Your task to perform on an android device: Open accessibility settings Image 0: 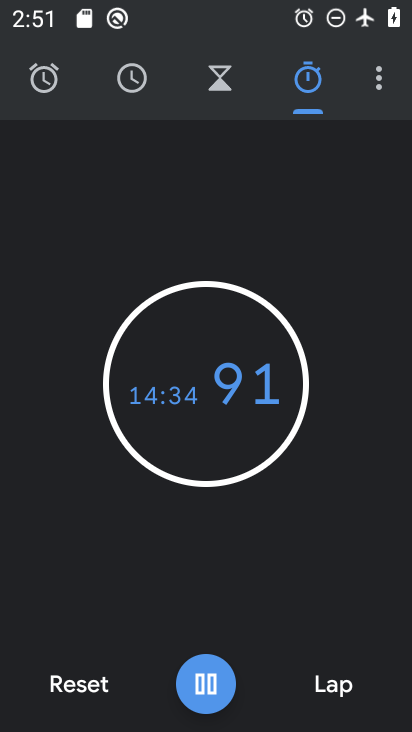
Step 0: press home button
Your task to perform on an android device: Open accessibility settings Image 1: 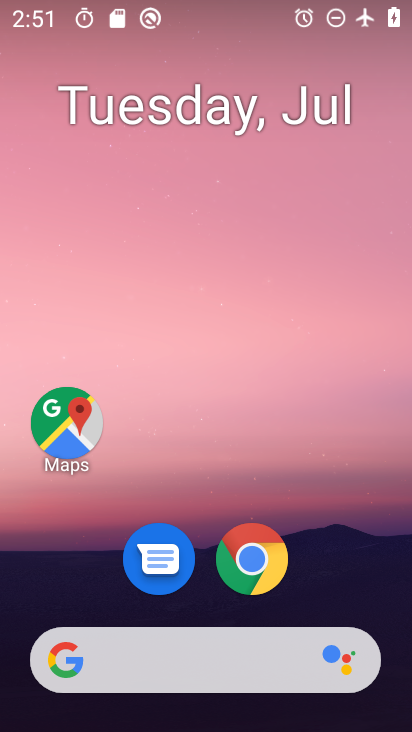
Step 1: drag from (360, 577) to (376, 152)
Your task to perform on an android device: Open accessibility settings Image 2: 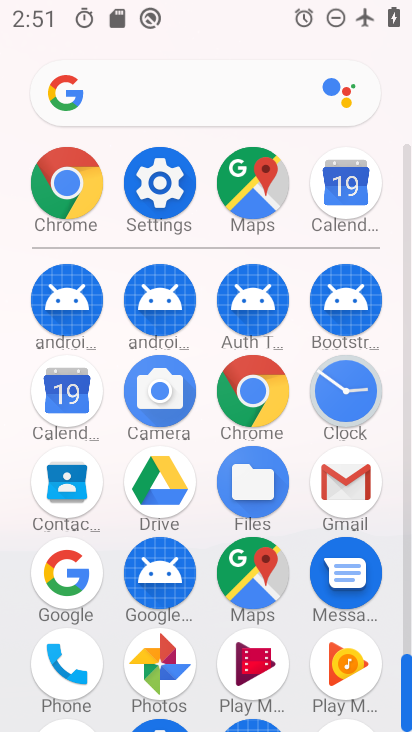
Step 2: click (169, 195)
Your task to perform on an android device: Open accessibility settings Image 3: 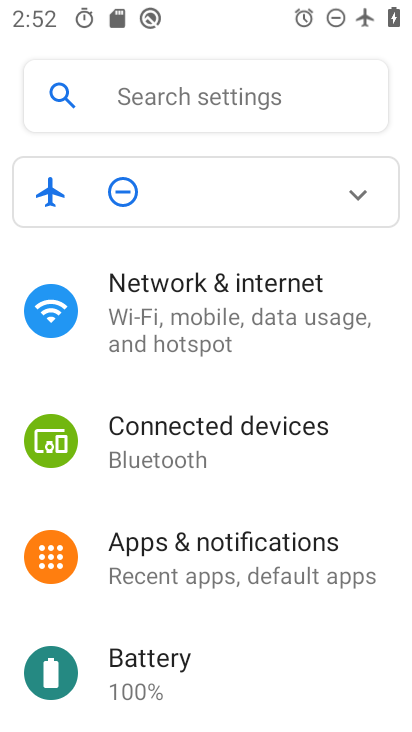
Step 3: drag from (350, 487) to (366, 418)
Your task to perform on an android device: Open accessibility settings Image 4: 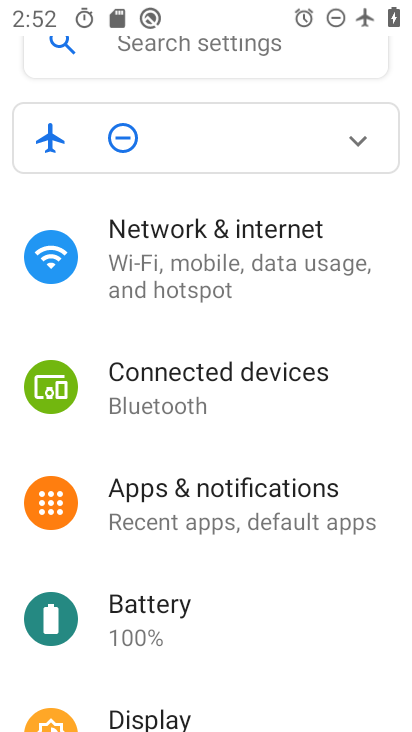
Step 4: drag from (371, 501) to (373, 425)
Your task to perform on an android device: Open accessibility settings Image 5: 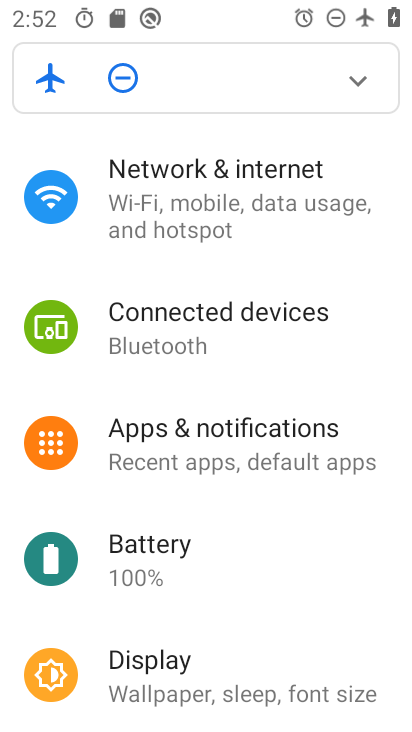
Step 5: drag from (374, 530) to (377, 454)
Your task to perform on an android device: Open accessibility settings Image 6: 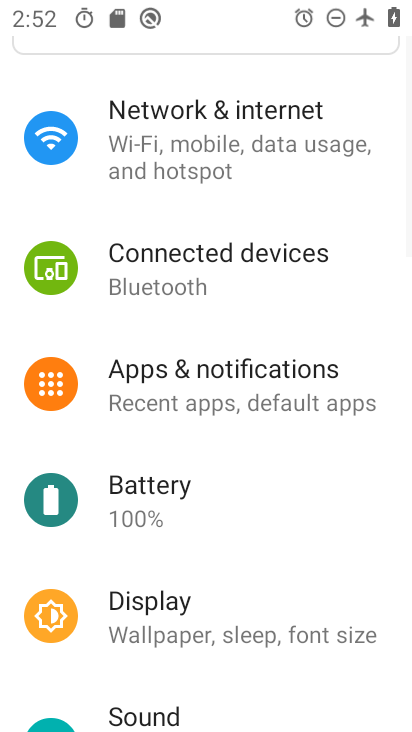
Step 6: drag from (367, 530) to (365, 462)
Your task to perform on an android device: Open accessibility settings Image 7: 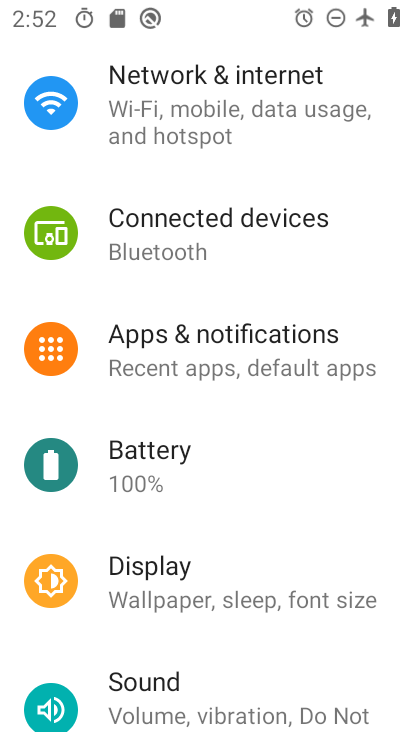
Step 7: drag from (350, 552) to (354, 420)
Your task to perform on an android device: Open accessibility settings Image 8: 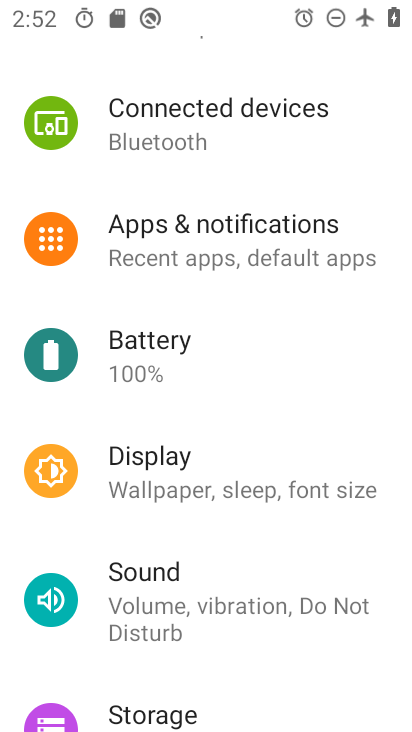
Step 8: drag from (327, 650) to (340, 463)
Your task to perform on an android device: Open accessibility settings Image 9: 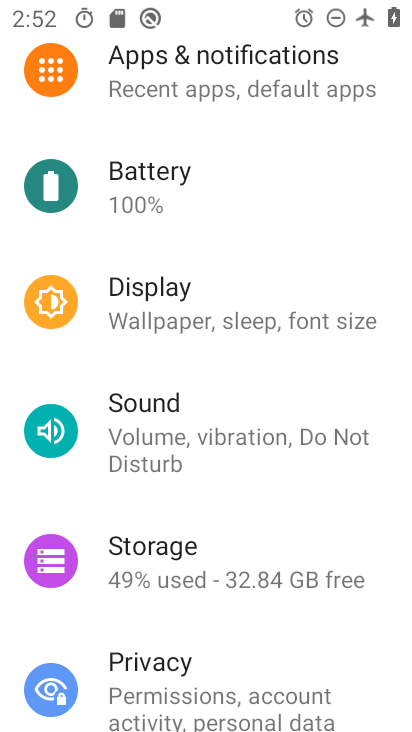
Step 9: drag from (326, 612) to (332, 408)
Your task to perform on an android device: Open accessibility settings Image 10: 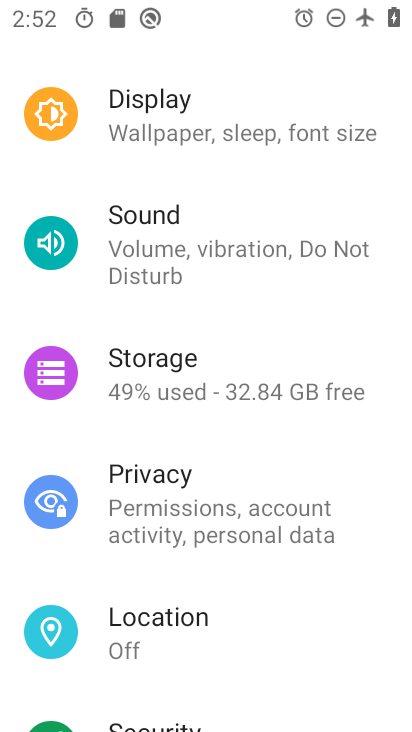
Step 10: drag from (317, 585) to (325, 454)
Your task to perform on an android device: Open accessibility settings Image 11: 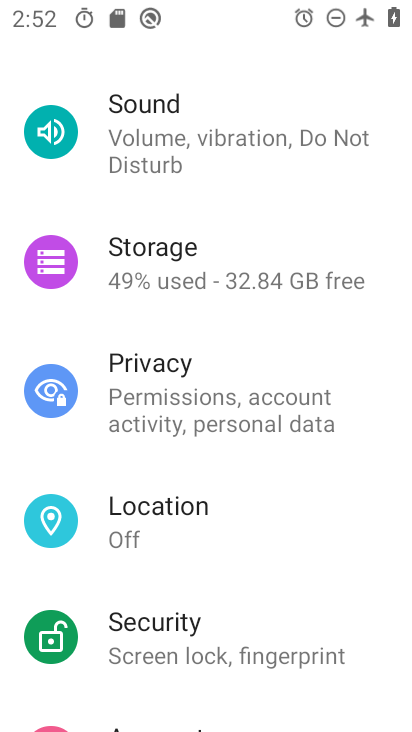
Step 11: drag from (300, 554) to (309, 367)
Your task to perform on an android device: Open accessibility settings Image 12: 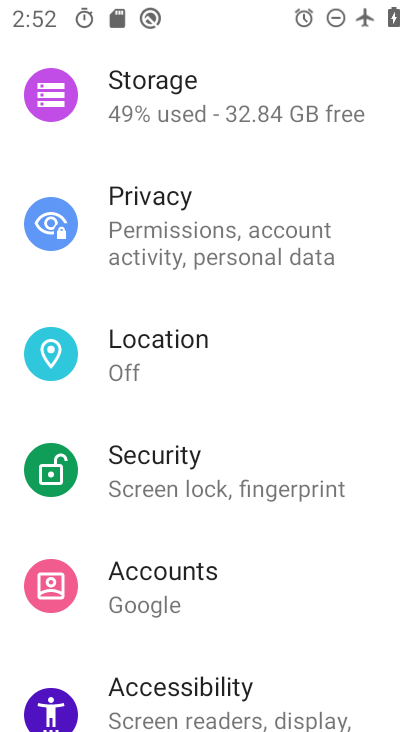
Step 12: drag from (306, 564) to (311, 444)
Your task to perform on an android device: Open accessibility settings Image 13: 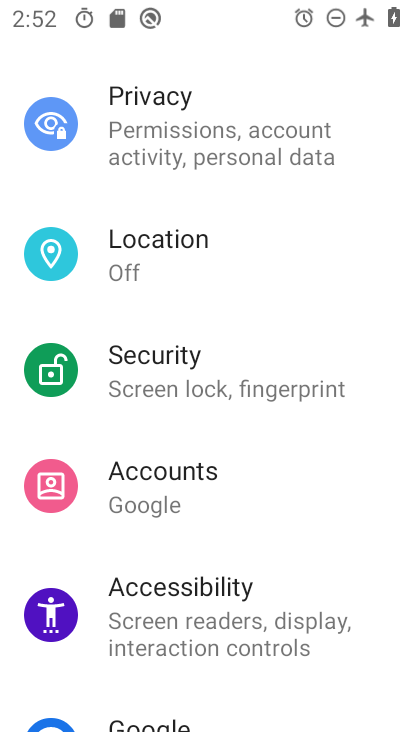
Step 13: click (311, 612)
Your task to perform on an android device: Open accessibility settings Image 14: 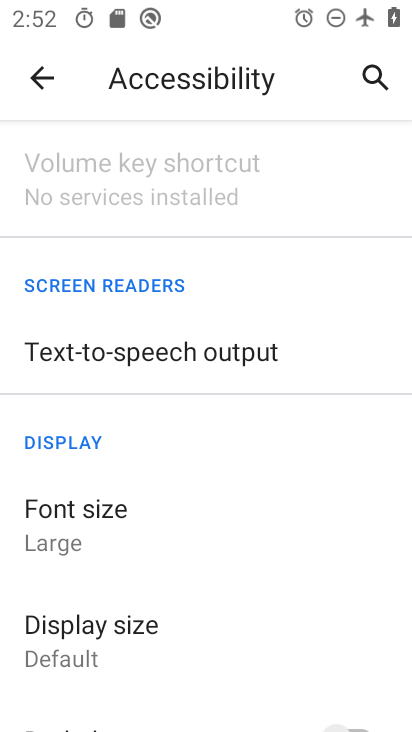
Step 14: task complete